Your task to perform on an android device: change the clock display to digital Image 0: 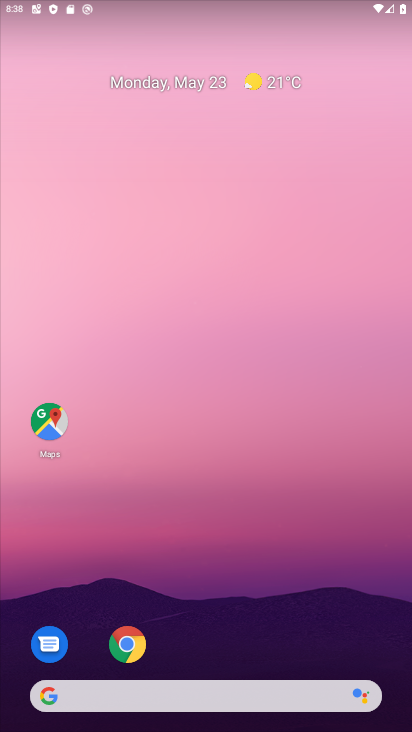
Step 0: drag from (107, 723) to (95, 11)
Your task to perform on an android device: change the clock display to digital Image 1: 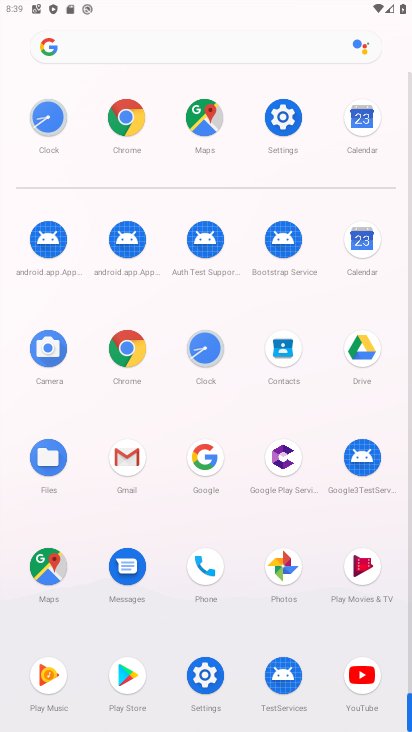
Step 1: click (197, 354)
Your task to perform on an android device: change the clock display to digital Image 2: 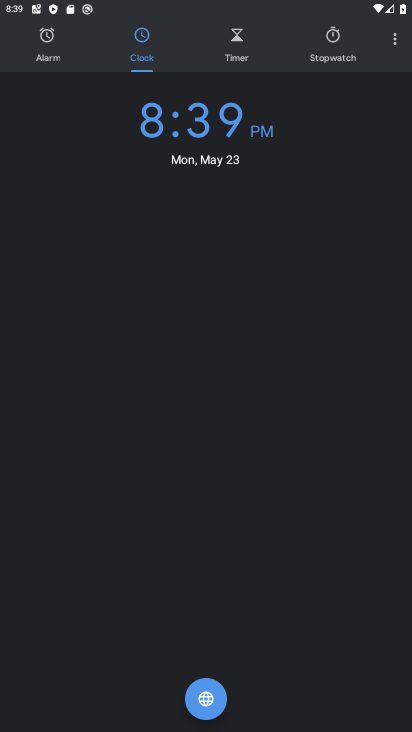
Step 2: click (391, 41)
Your task to perform on an android device: change the clock display to digital Image 3: 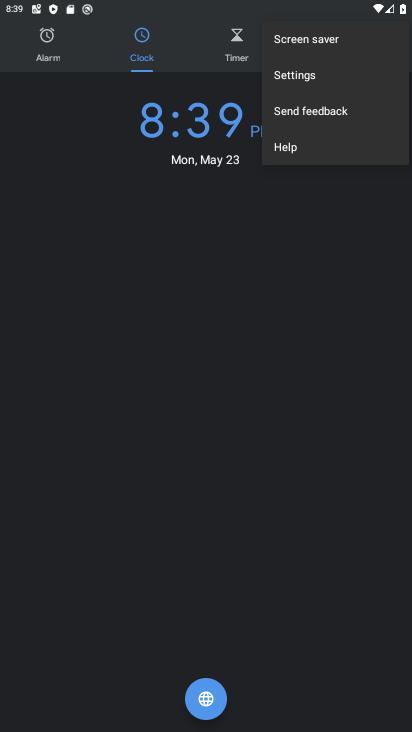
Step 3: click (315, 83)
Your task to perform on an android device: change the clock display to digital Image 4: 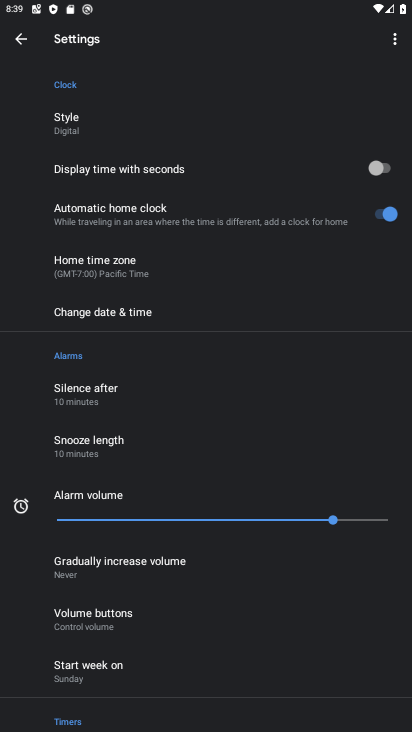
Step 4: click (138, 122)
Your task to perform on an android device: change the clock display to digital Image 5: 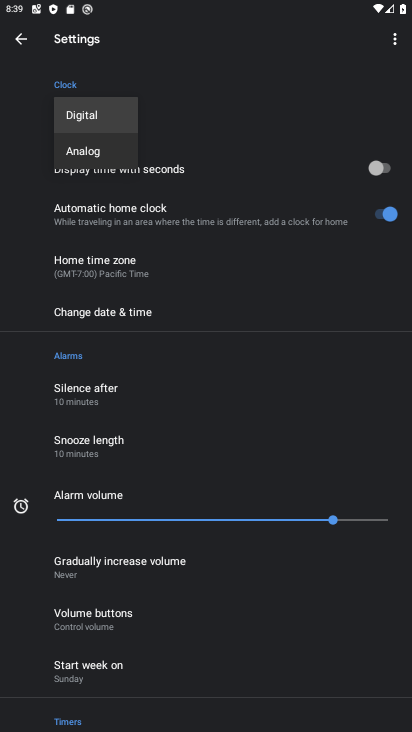
Step 5: task complete